Your task to perform on an android device: change keyboard looks Image 0: 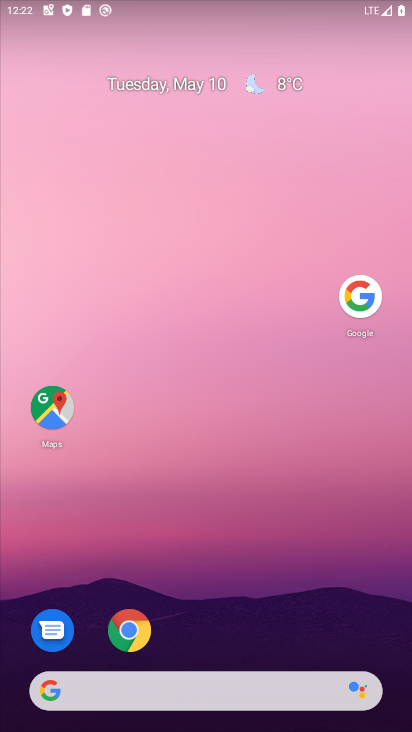
Step 0: press home button
Your task to perform on an android device: change keyboard looks Image 1: 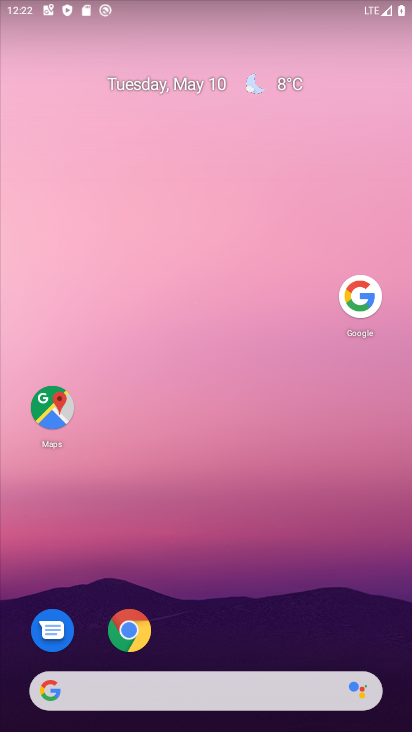
Step 1: drag from (189, 677) to (256, 258)
Your task to perform on an android device: change keyboard looks Image 2: 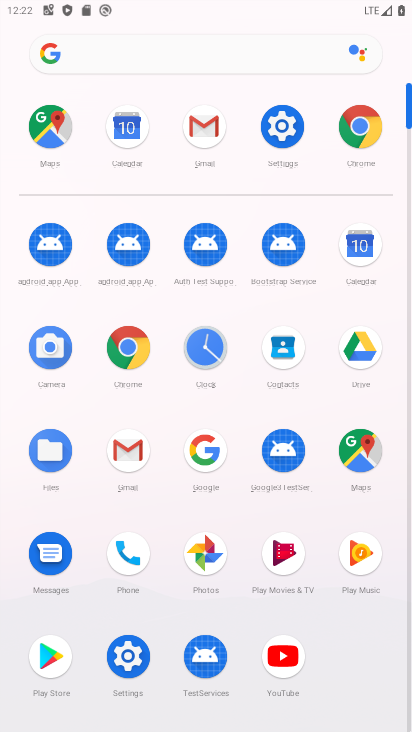
Step 2: click (276, 132)
Your task to perform on an android device: change keyboard looks Image 3: 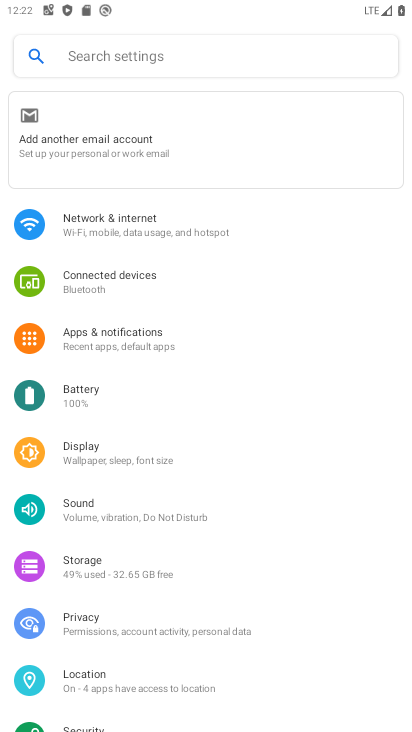
Step 3: drag from (156, 681) to (281, 301)
Your task to perform on an android device: change keyboard looks Image 4: 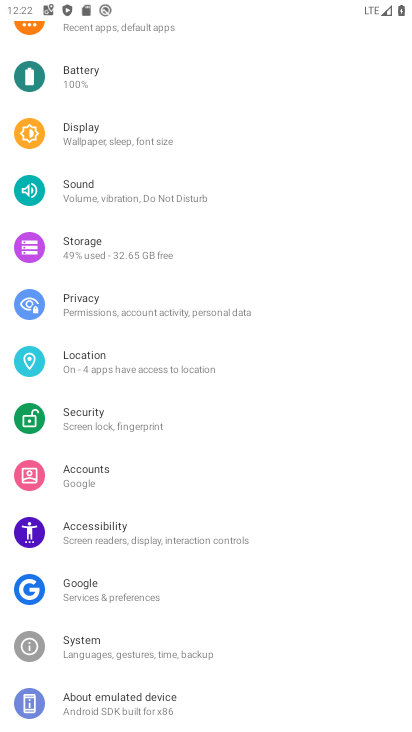
Step 4: drag from (132, 623) to (225, 471)
Your task to perform on an android device: change keyboard looks Image 5: 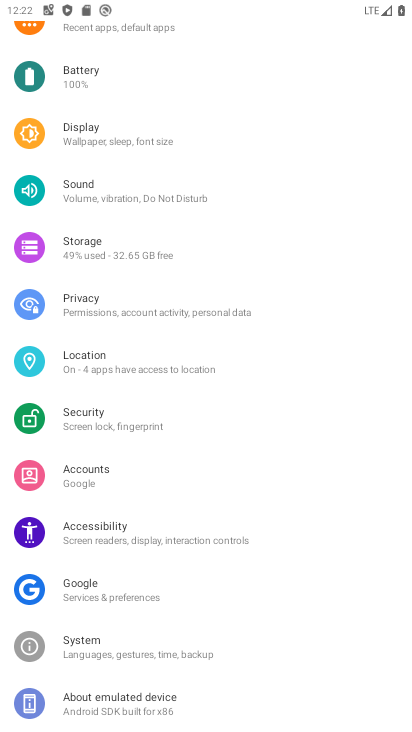
Step 5: click (110, 655)
Your task to perform on an android device: change keyboard looks Image 6: 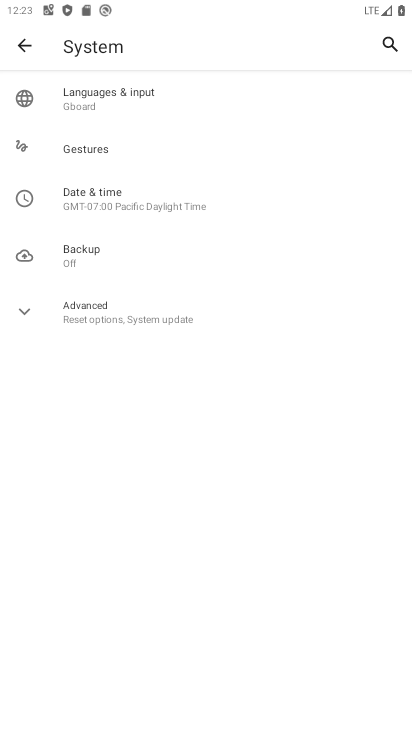
Step 6: click (134, 98)
Your task to perform on an android device: change keyboard looks Image 7: 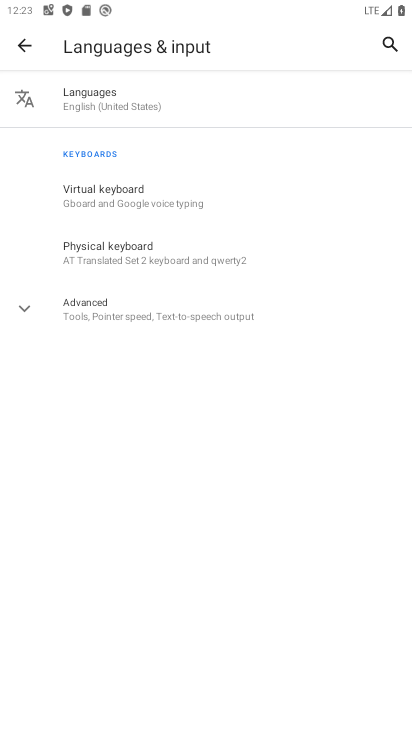
Step 7: click (87, 196)
Your task to perform on an android device: change keyboard looks Image 8: 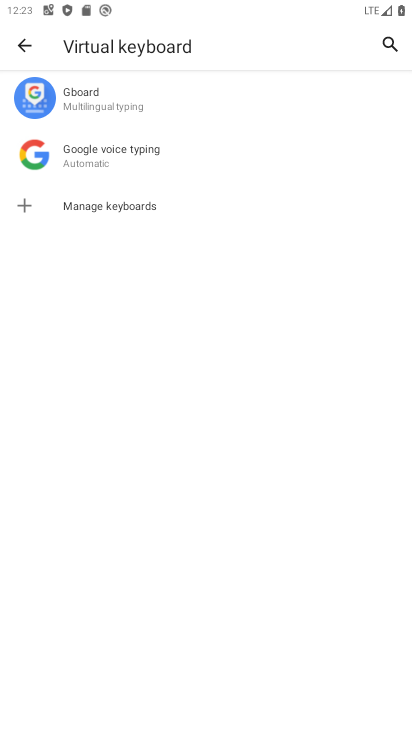
Step 8: click (92, 89)
Your task to perform on an android device: change keyboard looks Image 9: 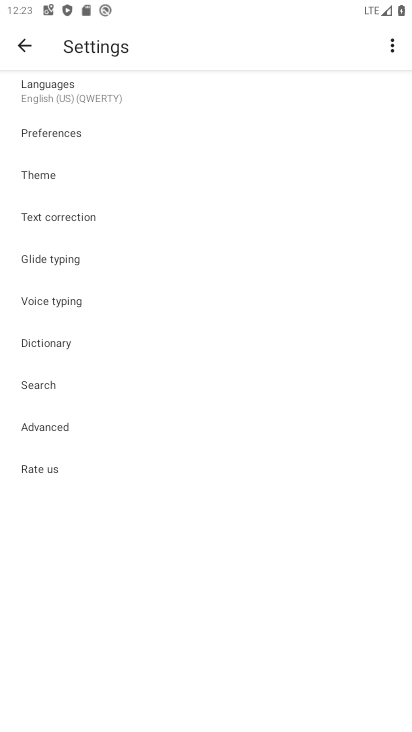
Step 9: click (39, 180)
Your task to perform on an android device: change keyboard looks Image 10: 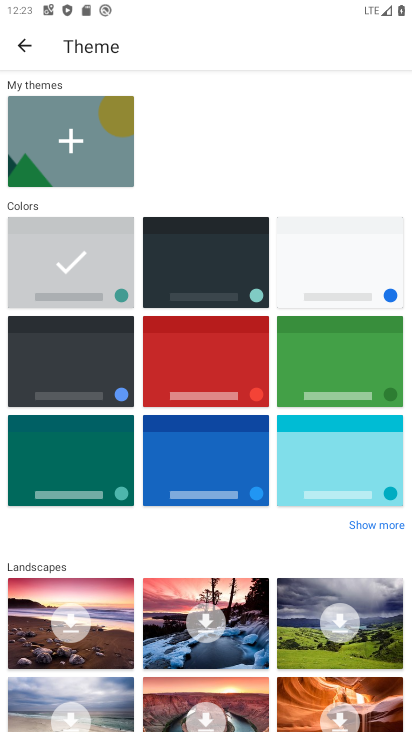
Step 10: click (222, 461)
Your task to perform on an android device: change keyboard looks Image 11: 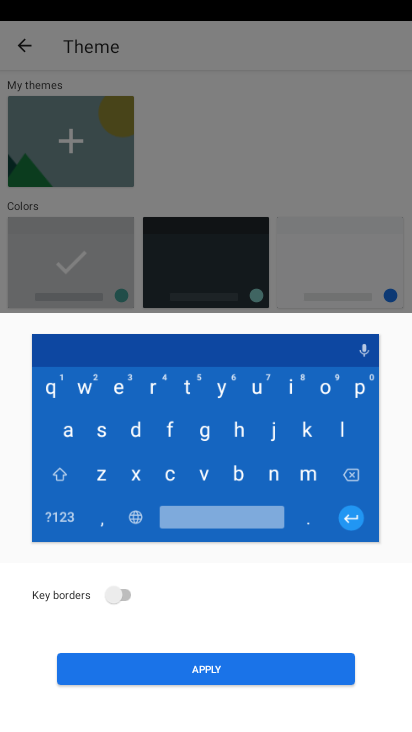
Step 11: click (224, 664)
Your task to perform on an android device: change keyboard looks Image 12: 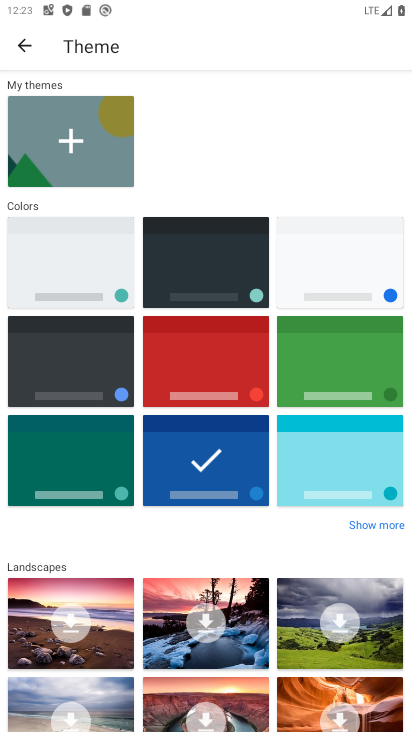
Step 12: task complete